Your task to perform on an android device: Show me popular games on the Play Store Image 0: 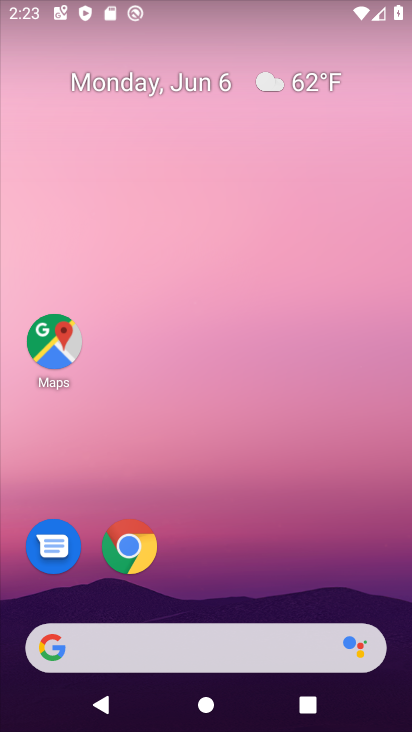
Step 0: drag from (249, 580) to (274, 210)
Your task to perform on an android device: Show me popular games on the Play Store Image 1: 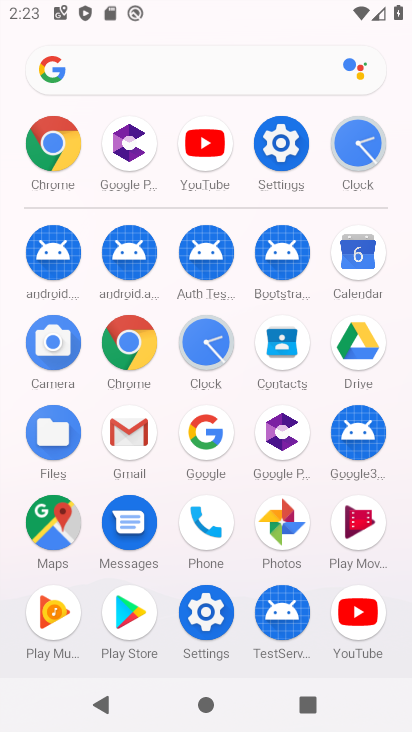
Step 1: click (125, 623)
Your task to perform on an android device: Show me popular games on the Play Store Image 2: 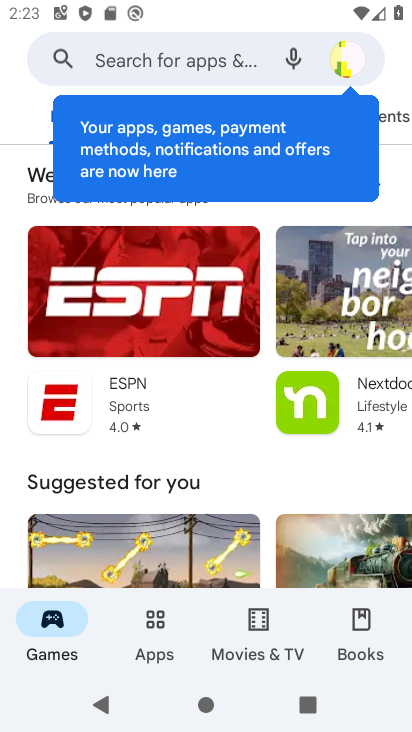
Step 2: drag from (332, 457) to (362, 140)
Your task to perform on an android device: Show me popular games on the Play Store Image 3: 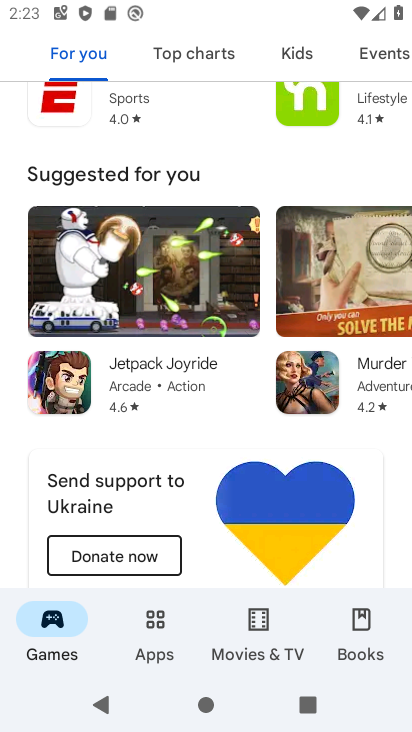
Step 3: drag from (229, 570) to (349, 224)
Your task to perform on an android device: Show me popular games on the Play Store Image 4: 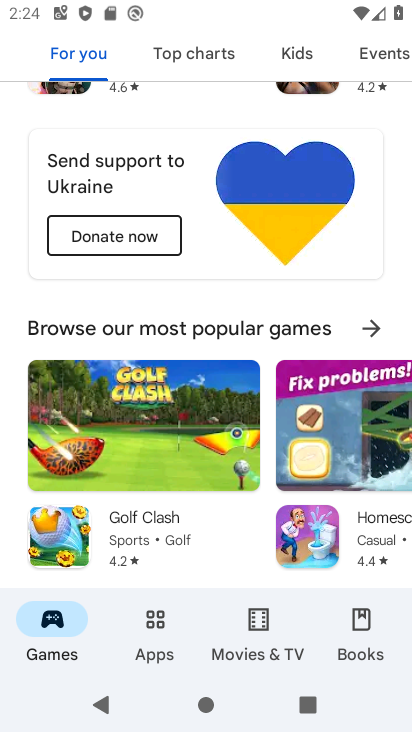
Step 4: drag from (366, 197) to (392, 142)
Your task to perform on an android device: Show me popular games on the Play Store Image 5: 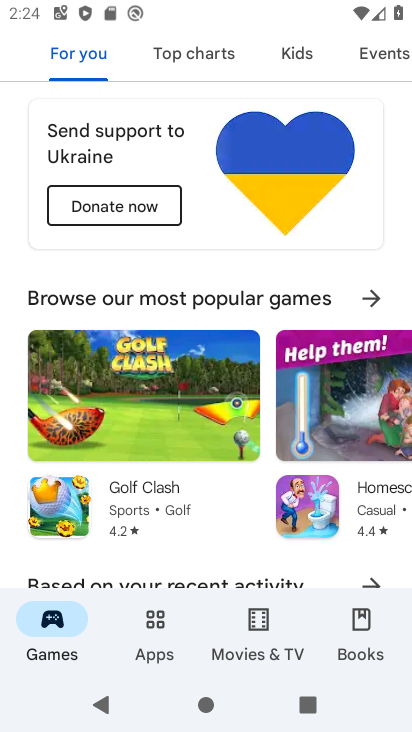
Step 5: drag from (264, 548) to (409, 227)
Your task to perform on an android device: Show me popular games on the Play Store Image 6: 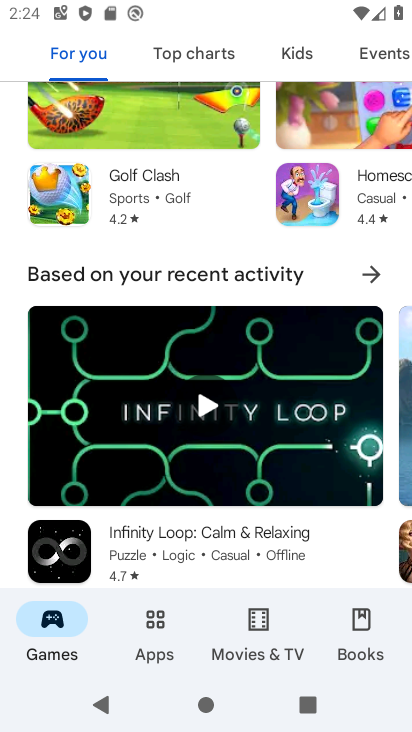
Step 6: drag from (347, 555) to (378, 234)
Your task to perform on an android device: Show me popular games on the Play Store Image 7: 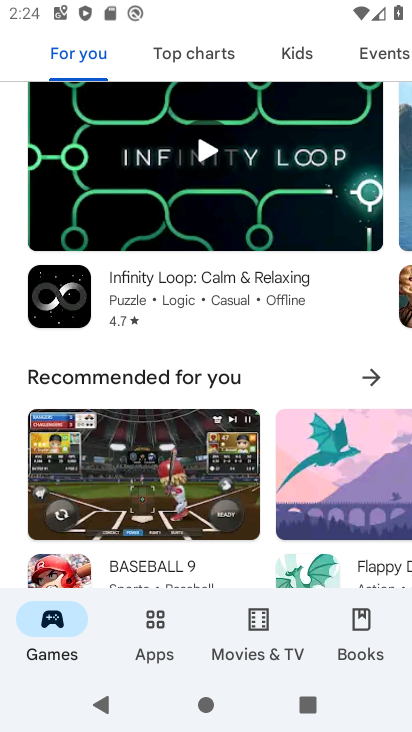
Step 7: click (393, 197)
Your task to perform on an android device: Show me popular games on the Play Store Image 8: 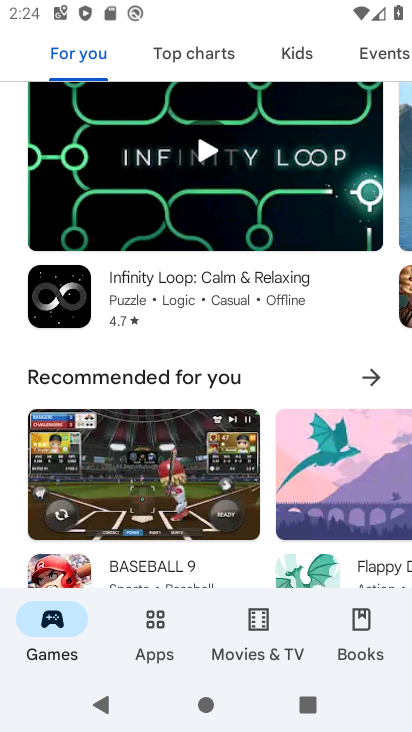
Step 8: drag from (260, 562) to (403, 210)
Your task to perform on an android device: Show me popular games on the Play Store Image 9: 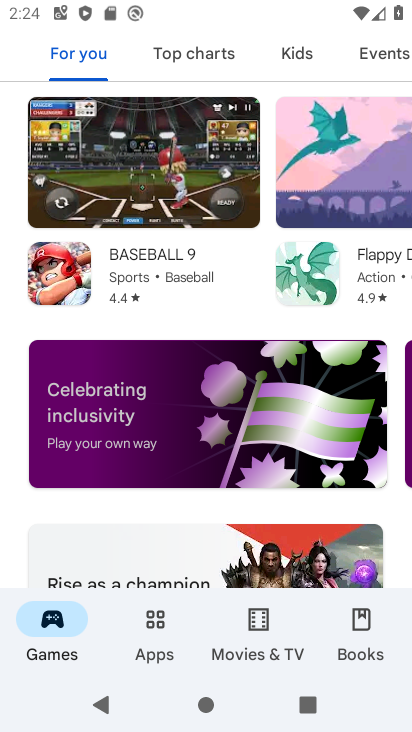
Step 9: drag from (363, 505) to (359, 191)
Your task to perform on an android device: Show me popular games on the Play Store Image 10: 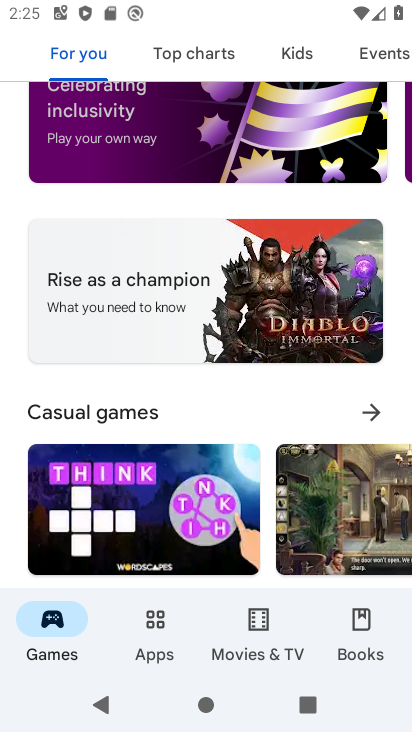
Step 10: drag from (228, 559) to (254, 175)
Your task to perform on an android device: Show me popular games on the Play Store Image 11: 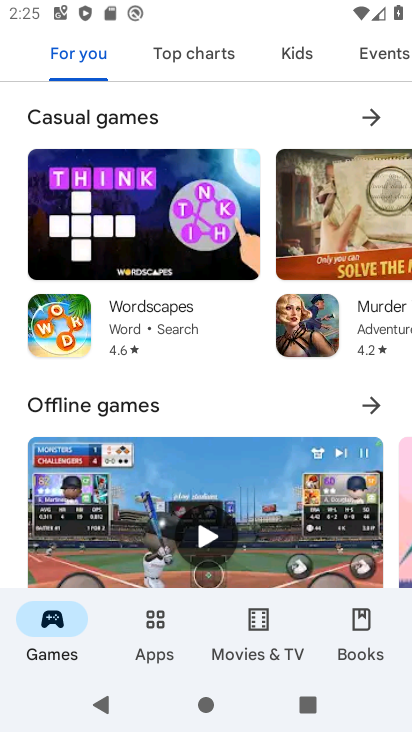
Step 11: drag from (276, 525) to (353, 88)
Your task to perform on an android device: Show me popular games on the Play Store Image 12: 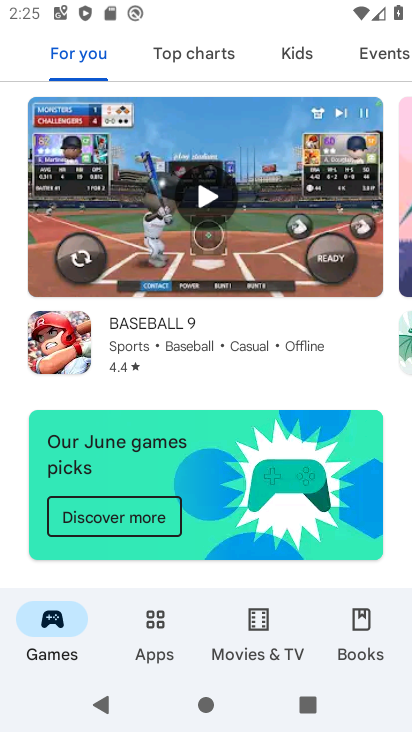
Step 12: drag from (258, 483) to (345, 88)
Your task to perform on an android device: Show me popular games on the Play Store Image 13: 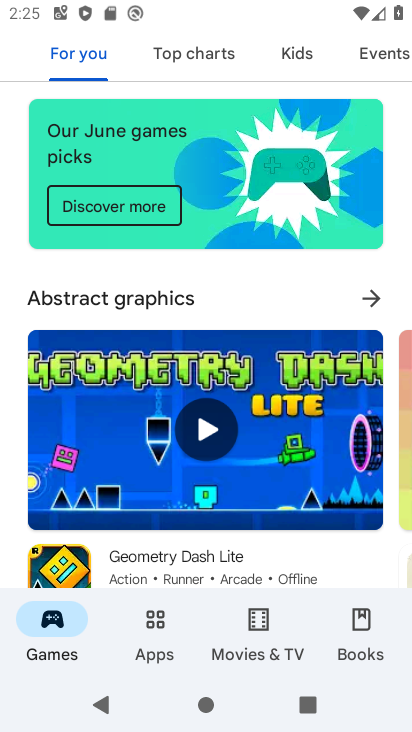
Step 13: drag from (250, 505) to (333, 134)
Your task to perform on an android device: Show me popular games on the Play Store Image 14: 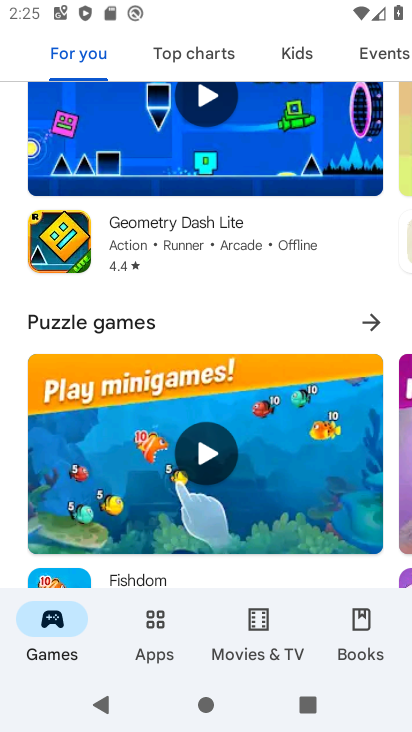
Step 14: drag from (276, 488) to (385, 257)
Your task to perform on an android device: Show me popular games on the Play Store Image 15: 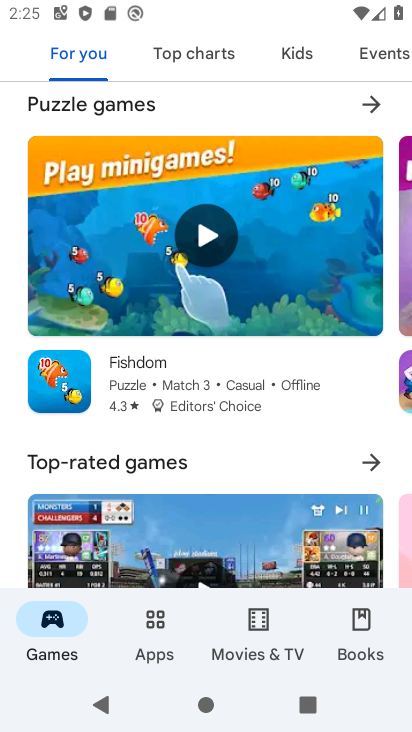
Step 15: drag from (271, 525) to (335, 242)
Your task to perform on an android device: Show me popular games on the Play Store Image 16: 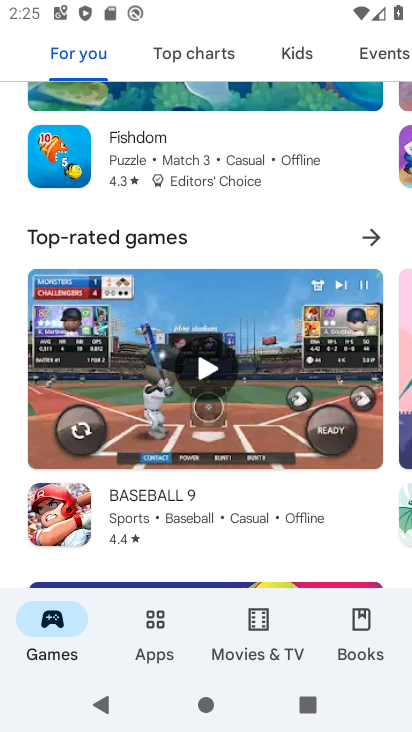
Step 16: drag from (308, 500) to (408, 93)
Your task to perform on an android device: Show me popular games on the Play Store Image 17: 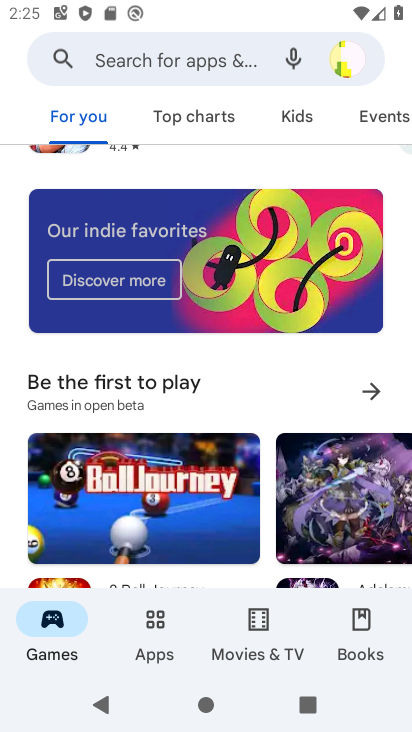
Step 17: drag from (304, 488) to (370, 49)
Your task to perform on an android device: Show me popular games on the Play Store Image 18: 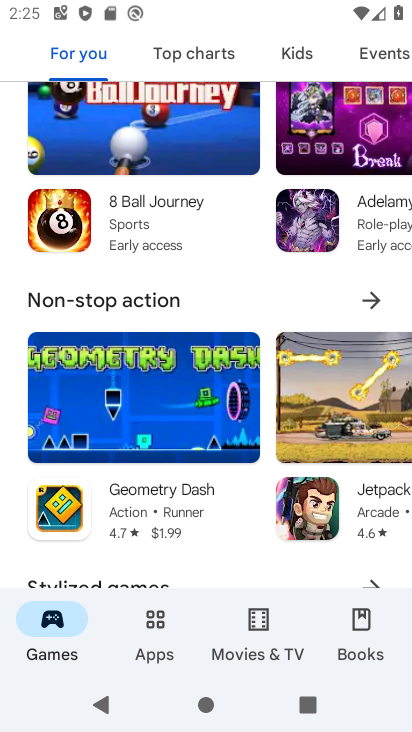
Step 18: drag from (215, 464) to (326, 159)
Your task to perform on an android device: Show me popular games on the Play Store Image 19: 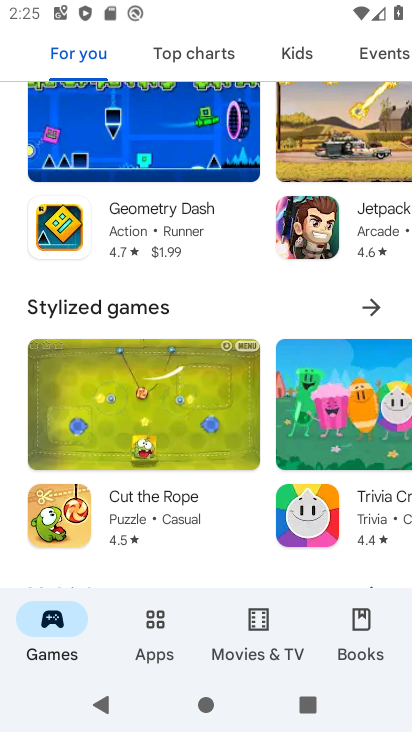
Step 19: drag from (221, 524) to (342, 194)
Your task to perform on an android device: Show me popular games on the Play Store Image 20: 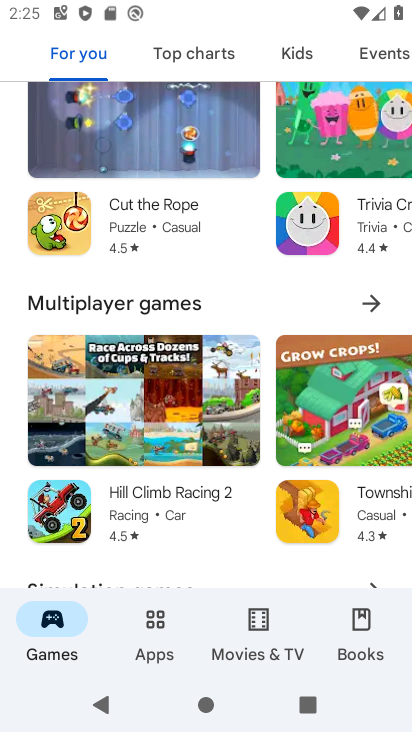
Step 20: drag from (238, 517) to (355, 196)
Your task to perform on an android device: Show me popular games on the Play Store Image 21: 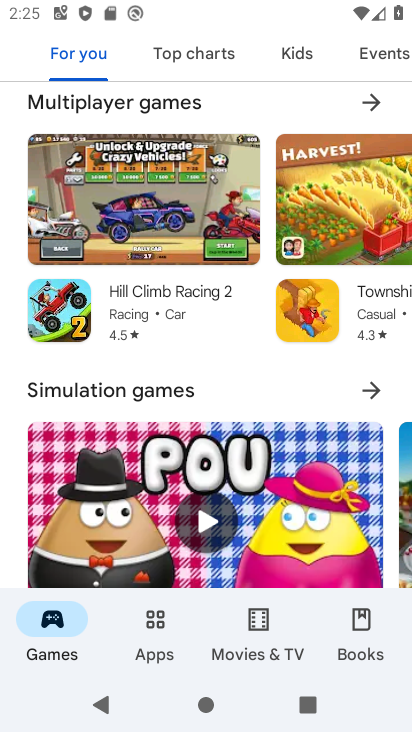
Step 21: drag from (275, 518) to (372, 247)
Your task to perform on an android device: Show me popular games on the Play Store Image 22: 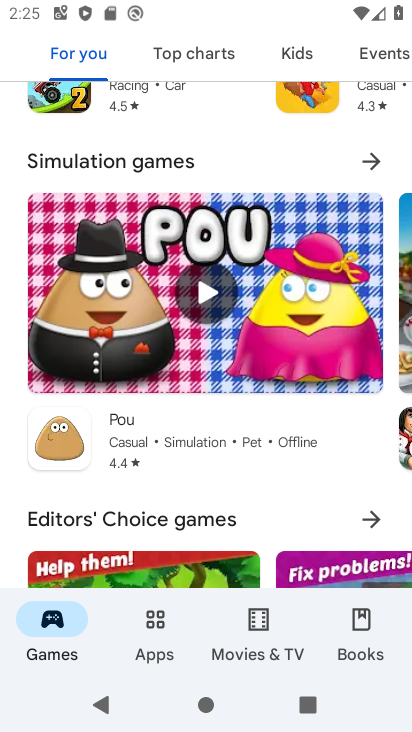
Step 22: drag from (286, 490) to (341, 232)
Your task to perform on an android device: Show me popular games on the Play Store Image 23: 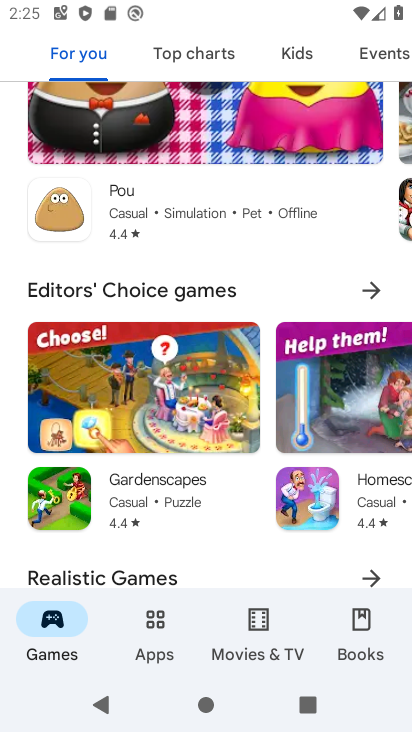
Step 23: drag from (315, 485) to (352, 103)
Your task to perform on an android device: Show me popular games on the Play Store Image 24: 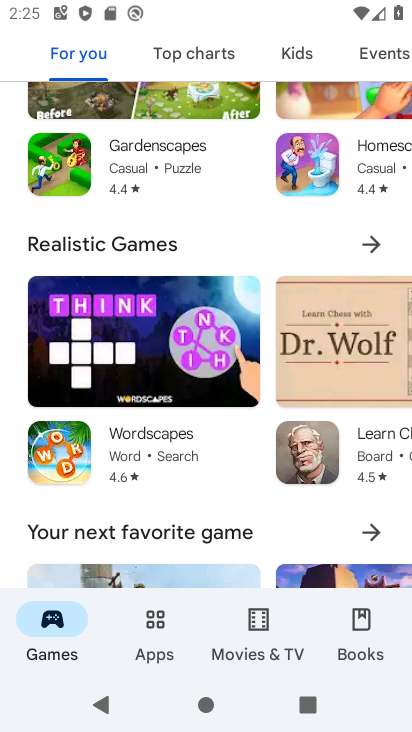
Step 24: drag from (280, 470) to (361, 161)
Your task to perform on an android device: Show me popular games on the Play Store Image 25: 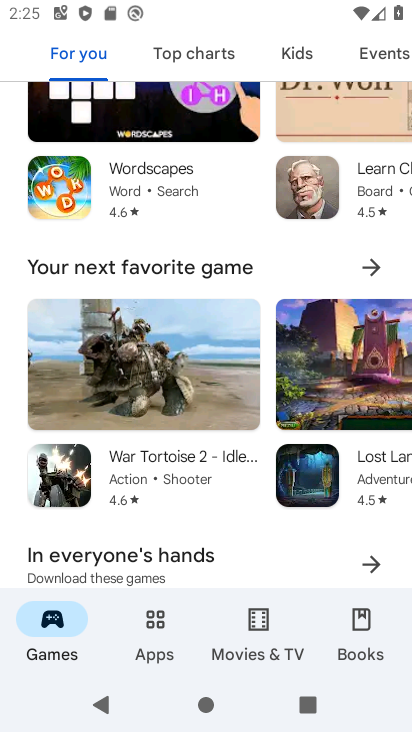
Step 25: click (362, 158)
Your task to perform on an android device: Show me popular games on the Play Store Image 26: 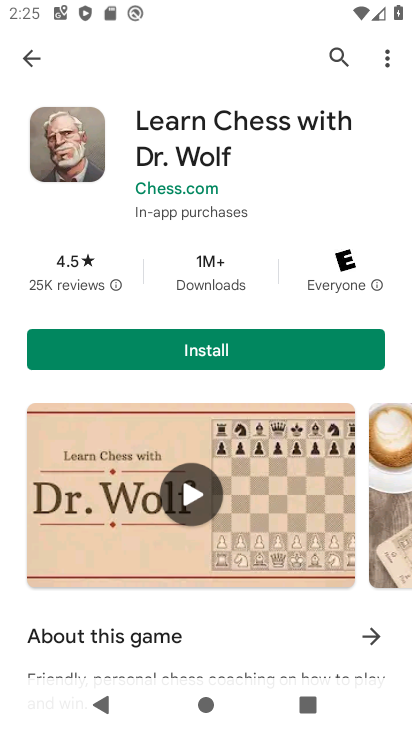
Step 26: drag from (288, 458) to (367, 183)
Your task to perform on an android device: Show me popular games on the Play Store Image 27: 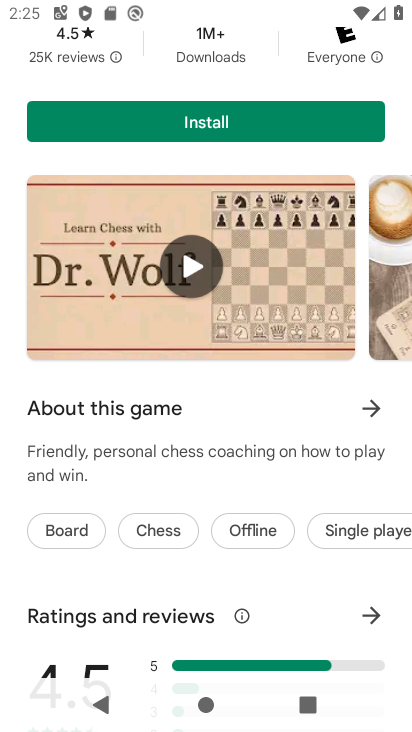
Step 27: drag from (177, 112) to (104, 492)
Your task to perform on an android device: Show me popular games on the Play Store Image 28: 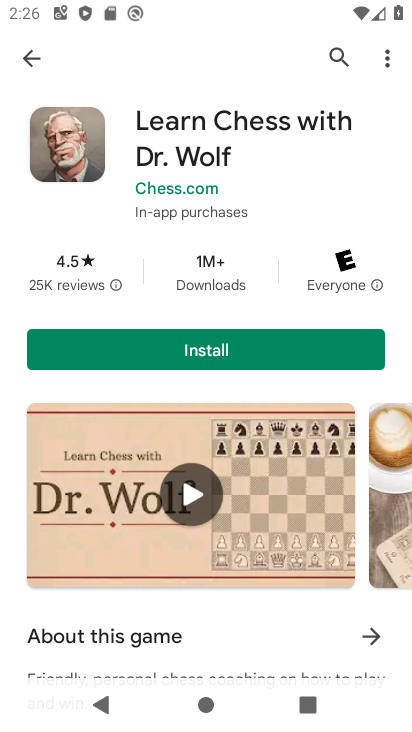
Step 28: click (32, 67)
Your task to perform on an android device: Show me popular games on the Play Store Image 29: 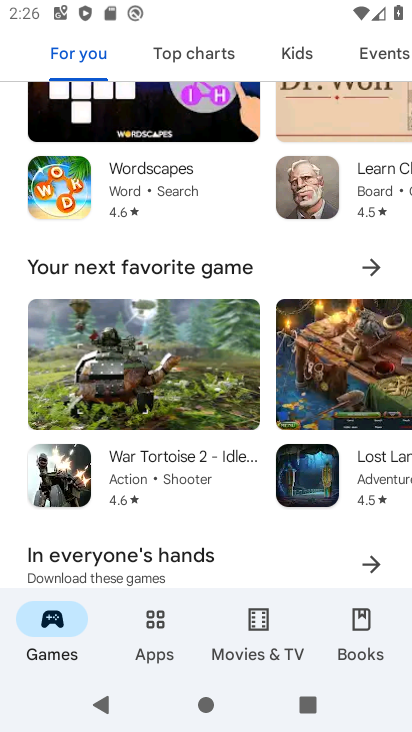
Step 29: task complete